Your task to perform on an android device: open wifi settings Image 0: 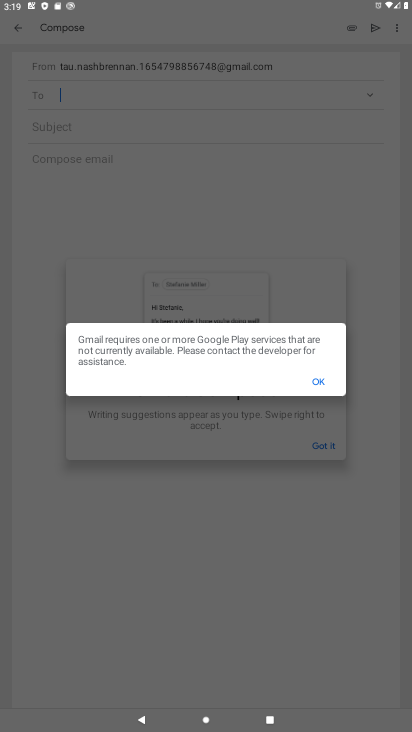
Step 0: press home button
Your task to perform on an android device: open wifi settings Image 1: 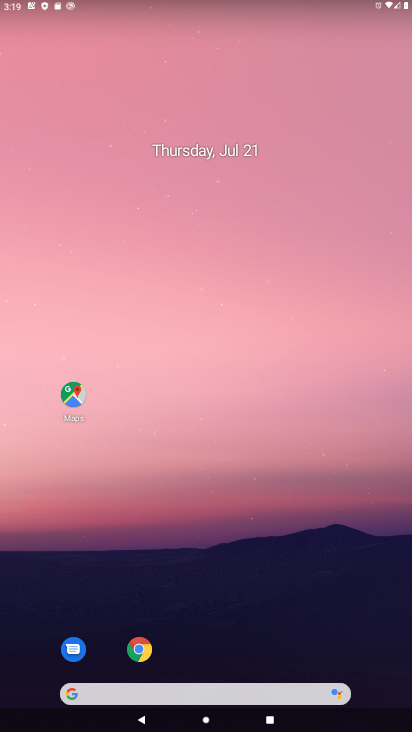
Step 1: drag from (254, 645) to (303, 50)
Your task to perform on an android device: open wifi settings Image 2: 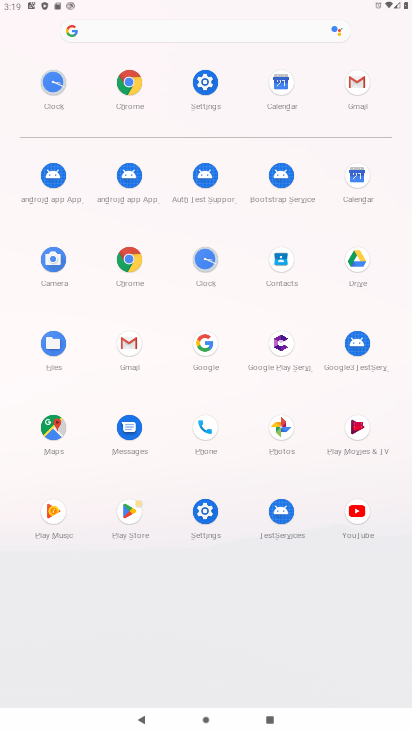
Step 2: click (193, 82)
Your task to perform on an android device: open wifi settings Image 3: 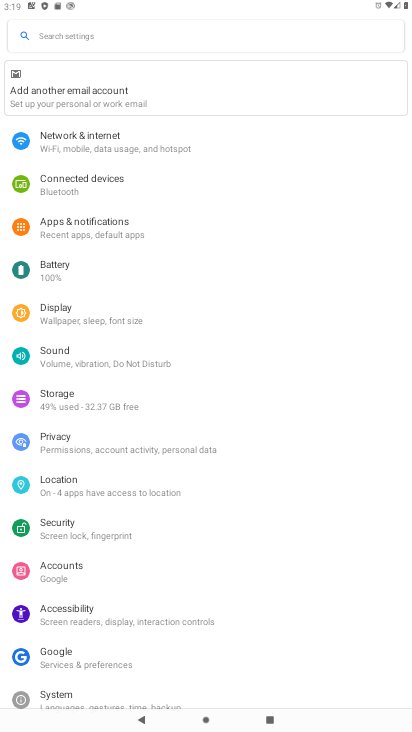
Step 3: click (136, 134)
Your task to perform on an android device: open wifi settings Image 4: 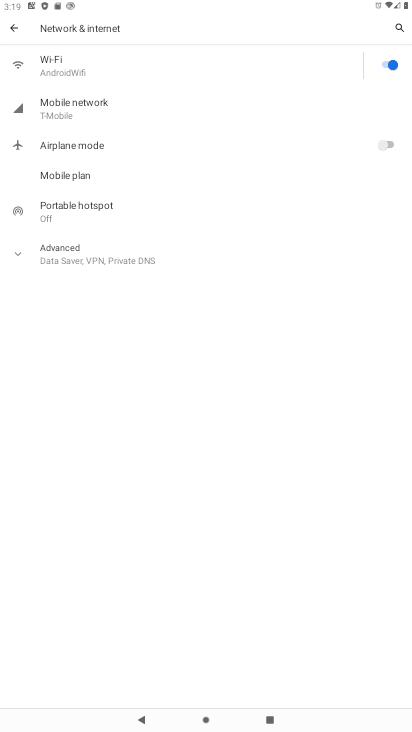
Step 4: click (143, 63)
Your task to perform on an android device: open wifi settings Image 5: 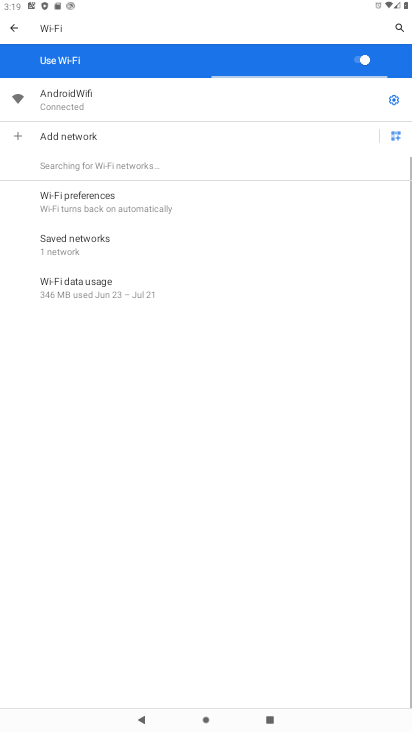
Step 5: task complete